Your task to perform on an android device: turn off priority inbox in the gmail app Image 0: 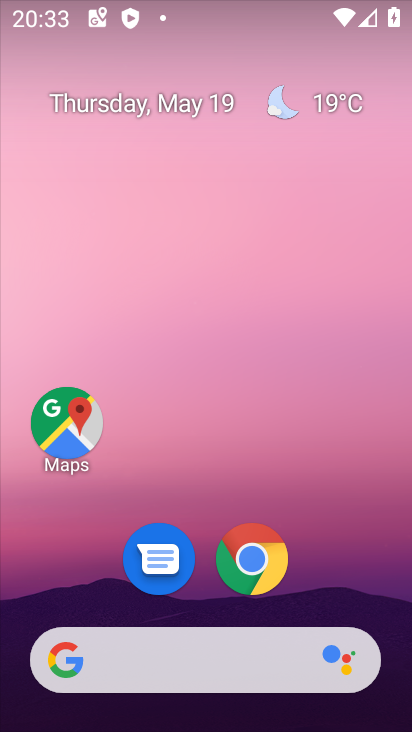
Step 0: drag from (167, 672) to (265, 142)
Your task to perform on an android device: turn off priority inbox in the gmail app Image 1: 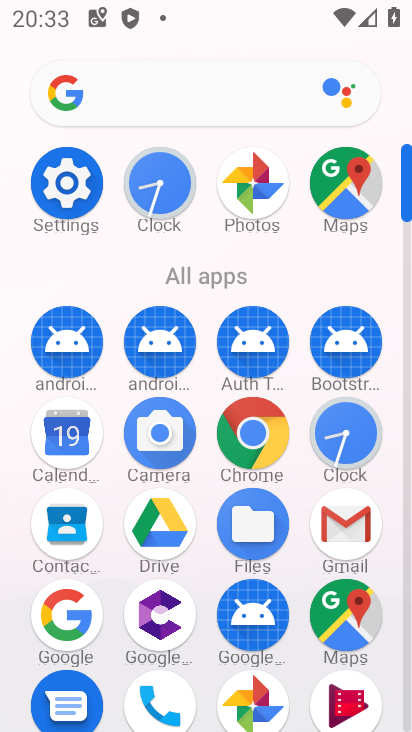
Step 1: click (339, 532)
Your task to perform on an android device: turn off priority inbox in the gmail app Image 2: 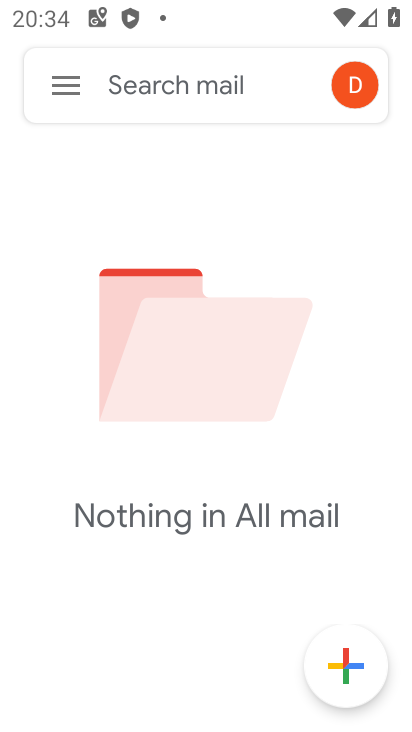
Step 2: click (59, 89)
Your task to perform on an android device: turn off priority inbox in the gmail app Image 3: 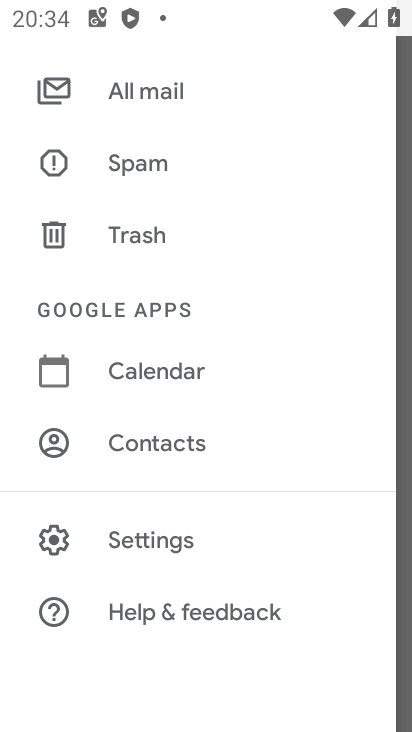
Step 3: click (146, 545)
Your task to perform on an android device: turn off priority inbox in the gmail app Image 4: 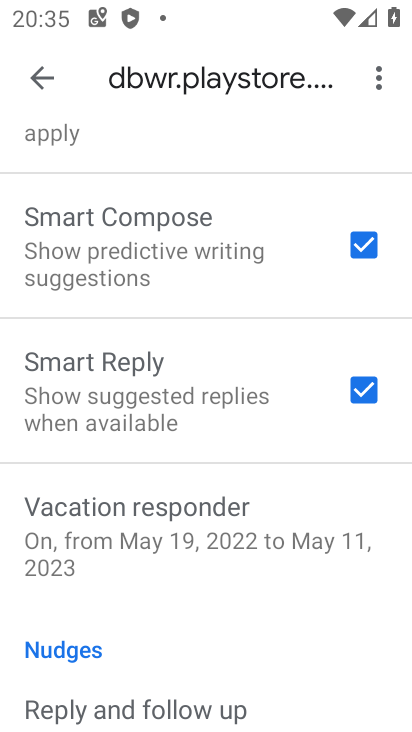
Step 4: drag from (150, 132) to (160, 539)
Your task to perform on an android device: turn off priority inbox in the gmail app Image 5: 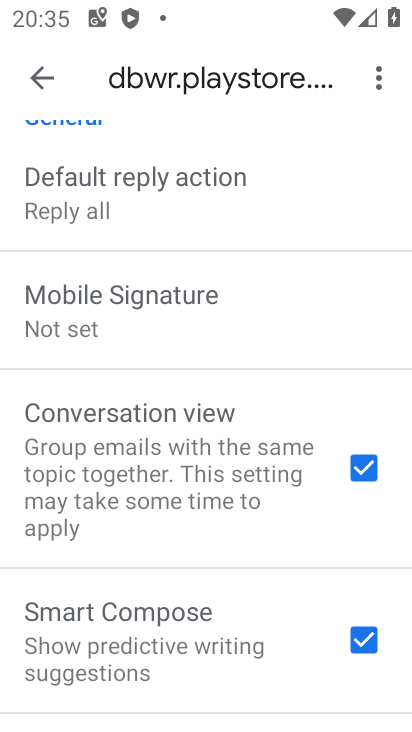
Step 5: drag from (144, 218) to (159, 517)
Your task to perform on an android device: turn off priority inbox in the gmail app Image 6: 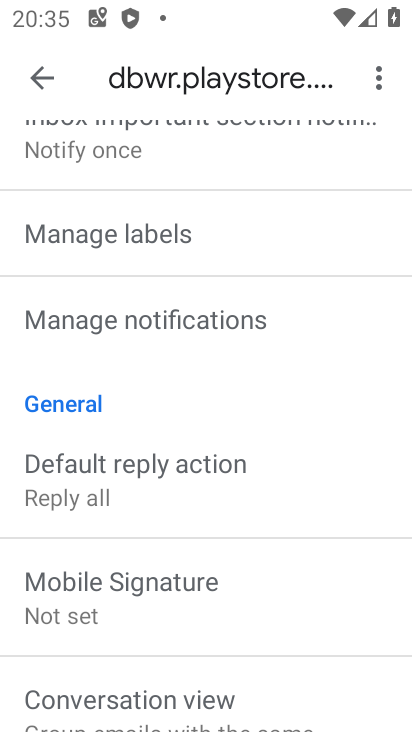
Step 6: drag from (161, 241) to (185, 618)
Your task to perform on an android device: turn off priority inbox in the gmail app Image 7: 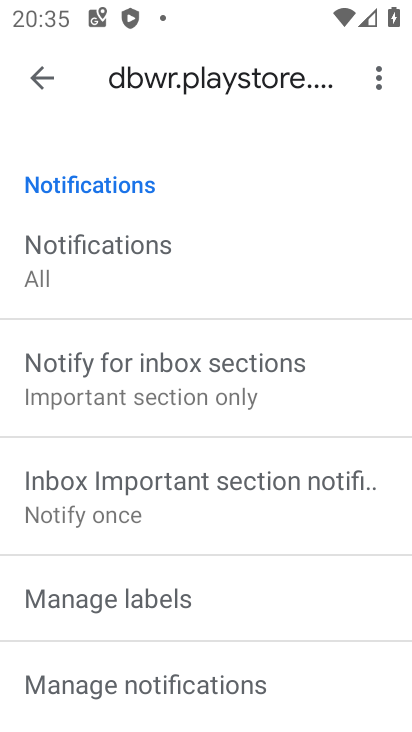
Step 7: drag from (154, 206) to (142, 652)
Your task to perform on an android device: turn off priority inbox in the gmail app Image 8: 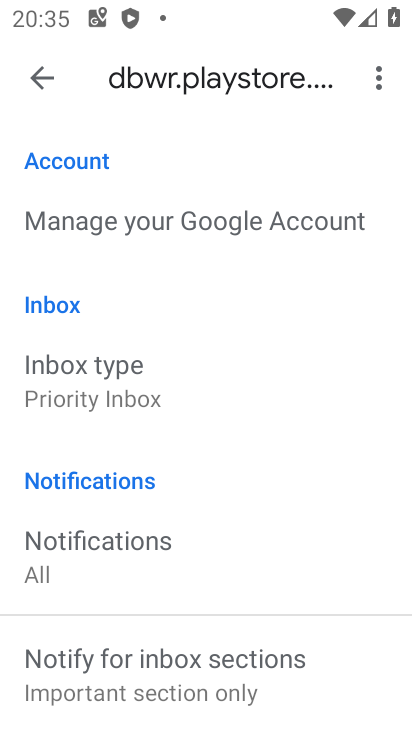
Step 8: click (90, 382)
Your task to perform on an android device: turn off priority inbox in the gmail app Image 9: 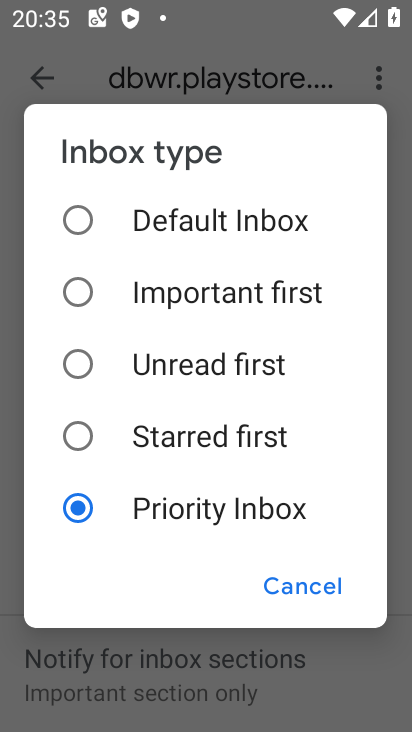
Step 9: click (143, 230)
Your task to perform on an android device: turn off priority inbox in the gmail app Image 10: 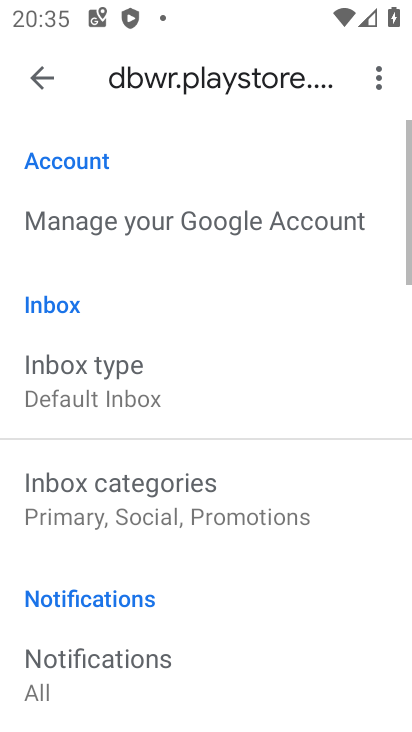
Step 10: task complete